Your task to perform on an android device: Open Yahoo.com Image 0: 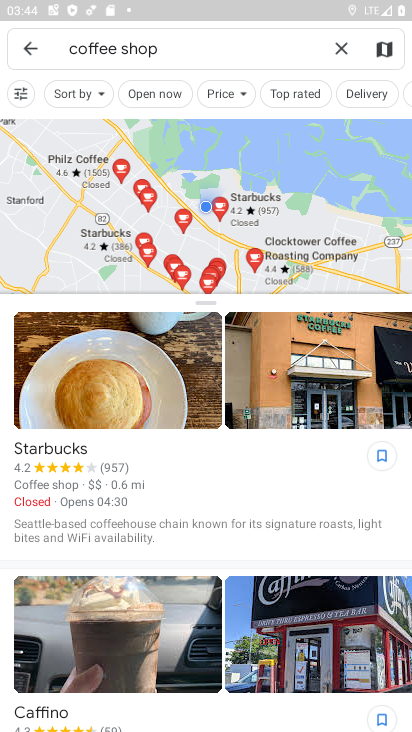
Step 0: press home button
Your task to perform on an android device: Open Yahoo.com Image 1: 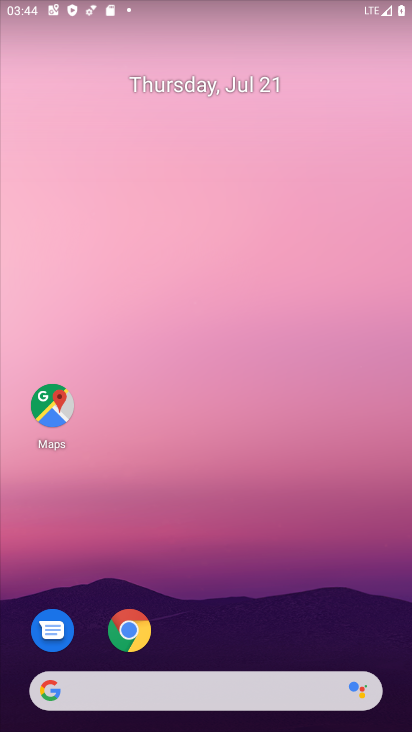
Step 1: click (129, 617)
Your task to perform on an android device: Open Yahoo.com Image 2: 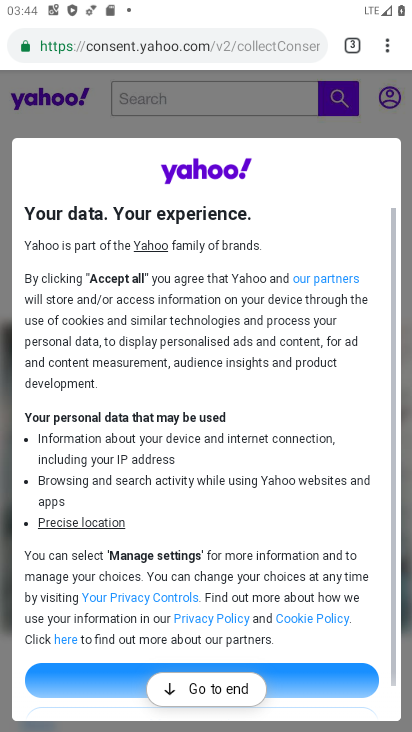
Step 2: task complete